Your task to perform on an android device: turn on location history Image 0: 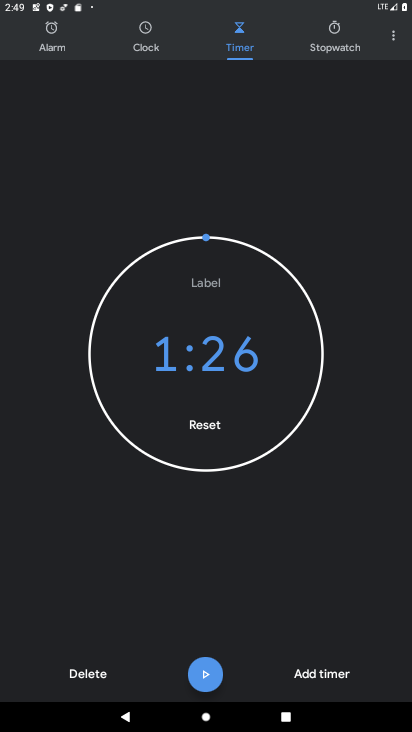
Step 0: click (406, 522)
Your task to perform on an android device: turn on location history Image 1: 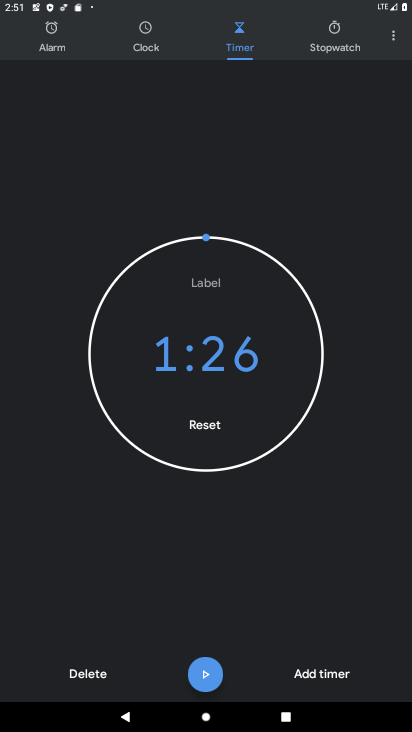
Step 1: press home button
Your task to perform on an android device: turn on location history Image 2: 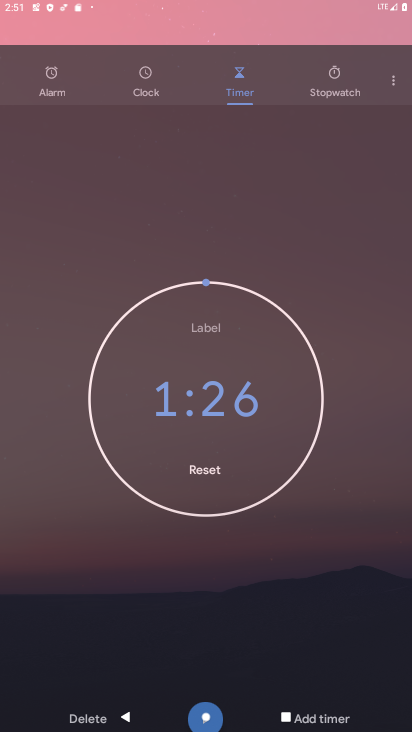
Step 2: press home button
Your task to perform on an android device: turn on location history Image 3: 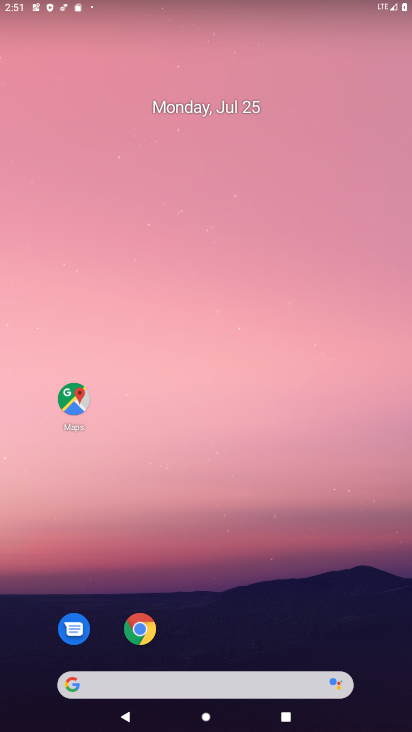
Step 3: drag from (252, 579) to (273, 29)
Your task to perform on an android device: turn on location history Image 4: 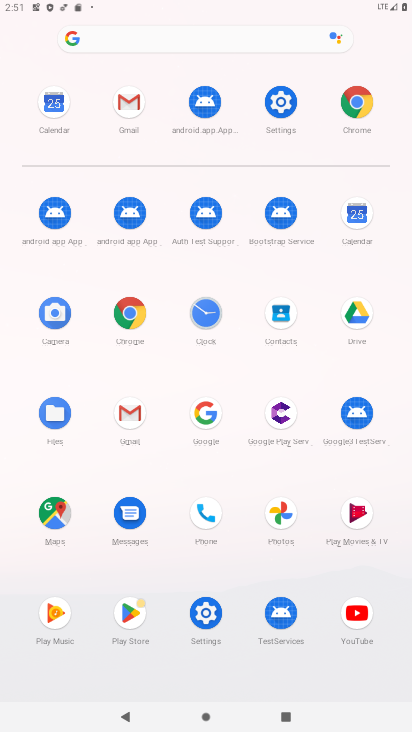
Step 4: click (200, 609)
Your task to perform on an android device: turn on location history Image 5: 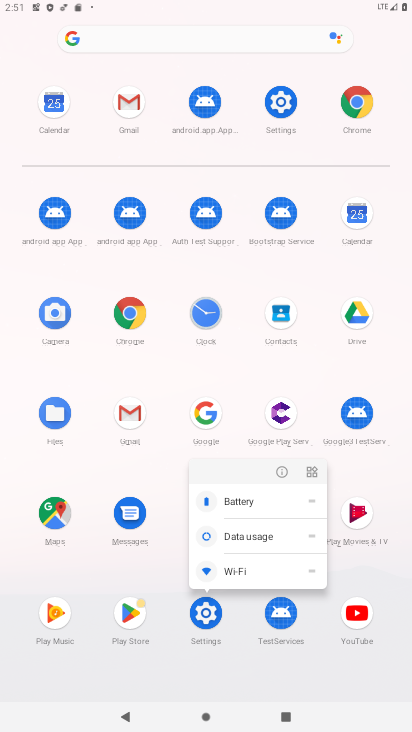
Step 5: click (280, 471)
Your task to perform on an android device: turn on location history Image 6: 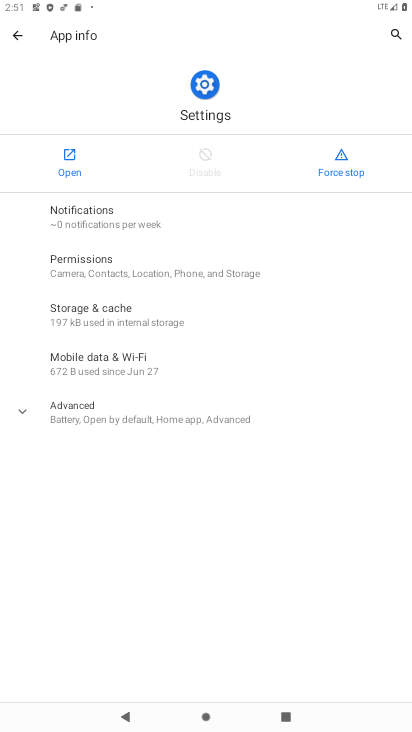
Step 6: click (279, 466)
Your task to perform on an android device: turn on location history Image 7: 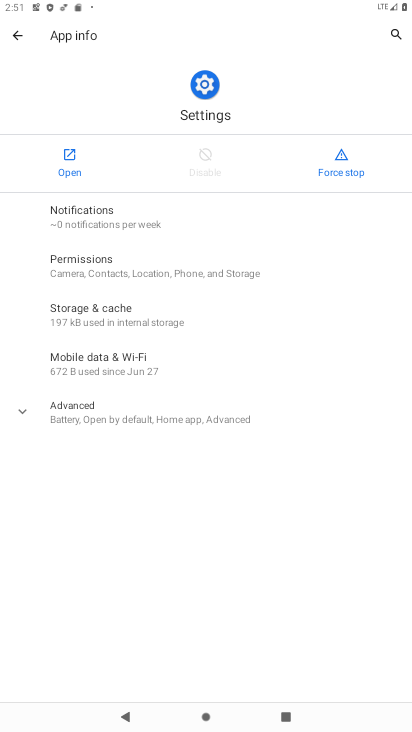
Step 7: click (65, 162)
Your task to perform on an android device: turn on location history Image 8: 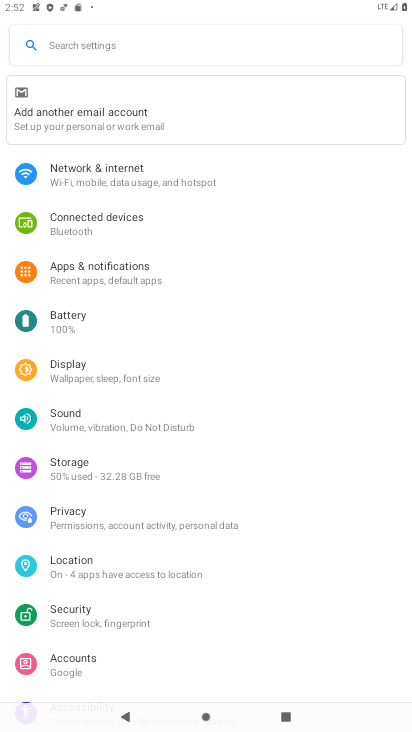
Step 8: click (82, 562)
Your task to perform on an android device: turn on location history Image 9: 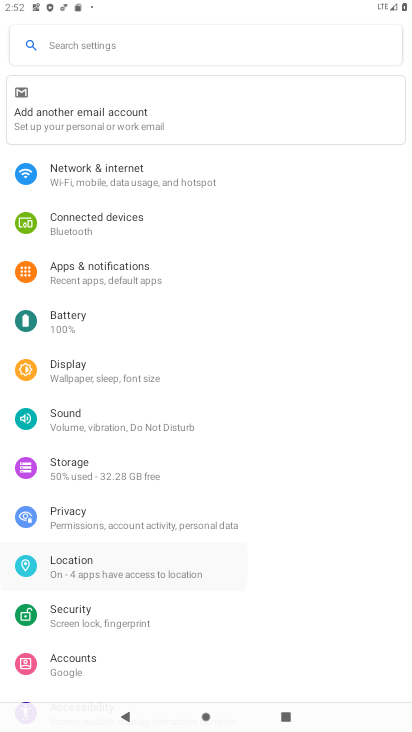
Step 9: click (82, 562)
Your task to perform on an android device: turn on location history Image 10: 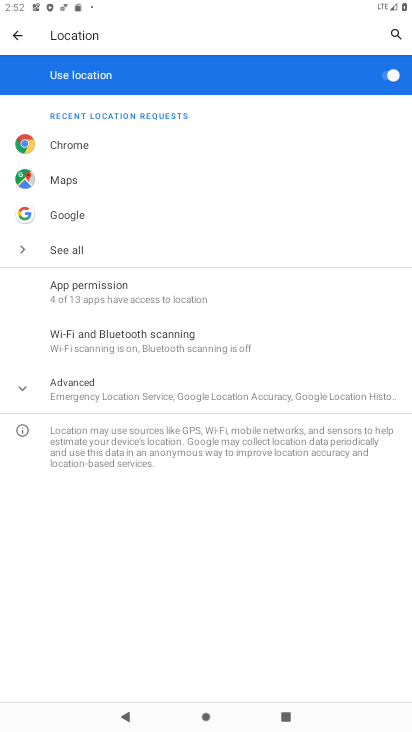
Step 10: task complete